Your task to perform on an android device: check out phone information Image 0: 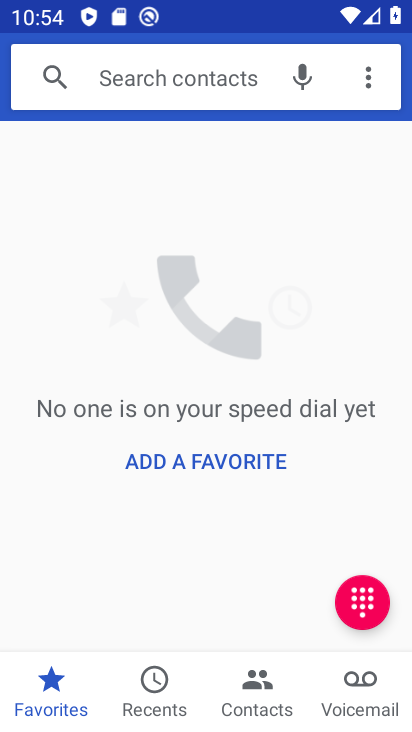
Step 0: press home button
Your task to perform on an android device: check out phone information Image 1: 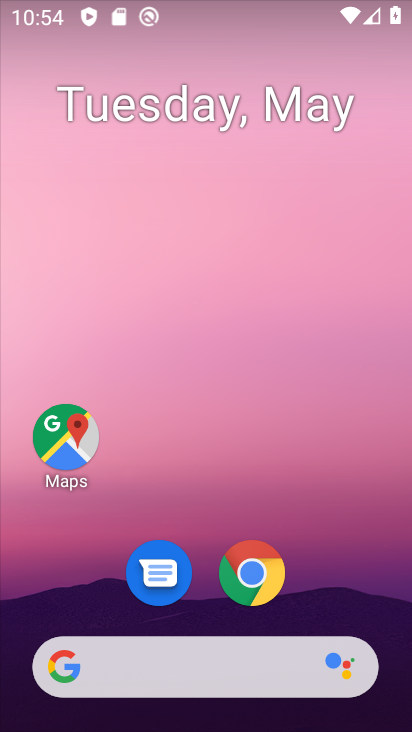
Step 1: drag from (242, 614) to (200, 318)
Your task to perform on an android device: check out phone information Image 2: 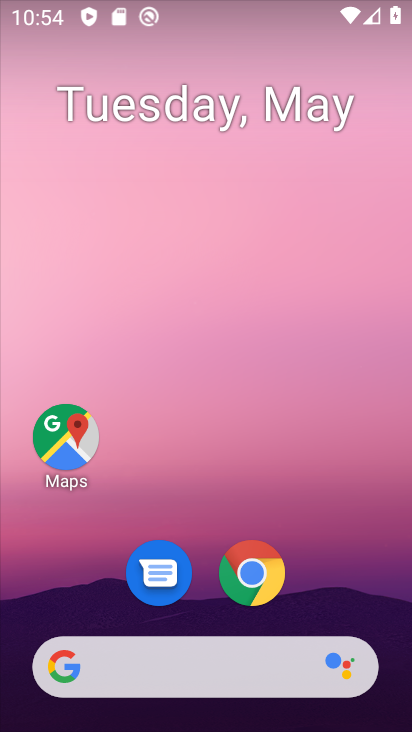
Step 2: drag from (192, 605) to (183, 328)
Your task to perform on an android device: check out phone information Image 3: 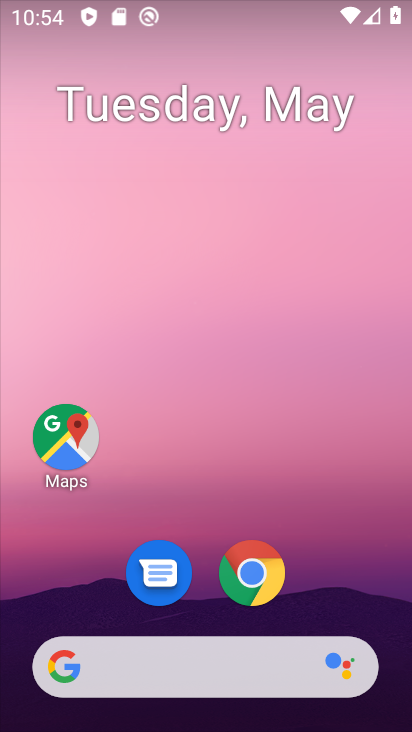
Step 3: drag from (205, 607) to (202, 190)
Your task to perform on an android device: check out phone information Image 4: 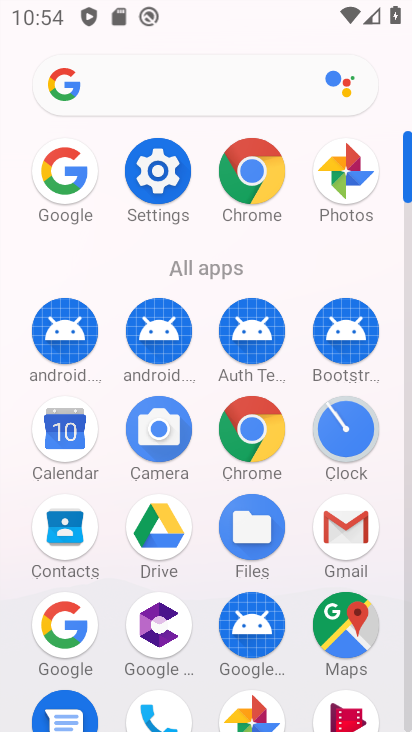
Step 4: click (162, 705)
Your task to perform on an android device: check out phone information Image 5: 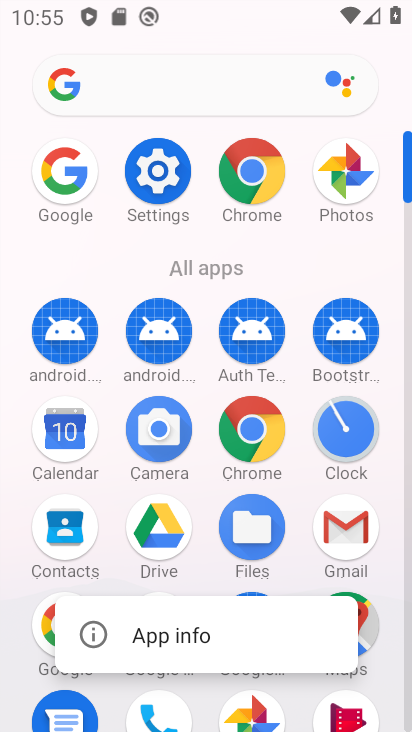
Step 5: click (167, 627)
Your task to perform on an android device: check out phone information Image 6: 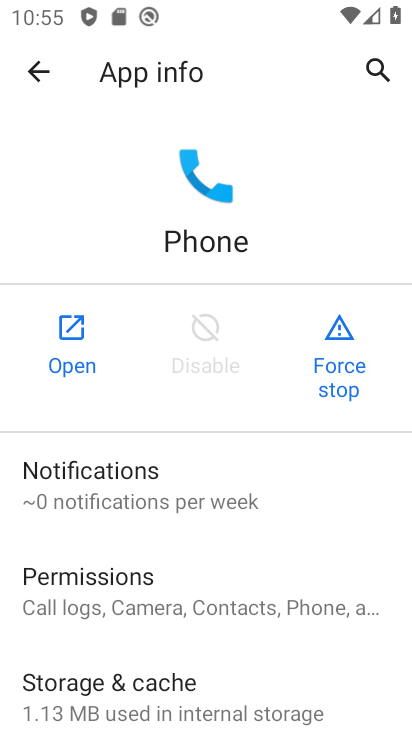
Step 6: drag from (146, 697) to (190, 406)
Your task to perform on an android device: check out phone information Image 7: 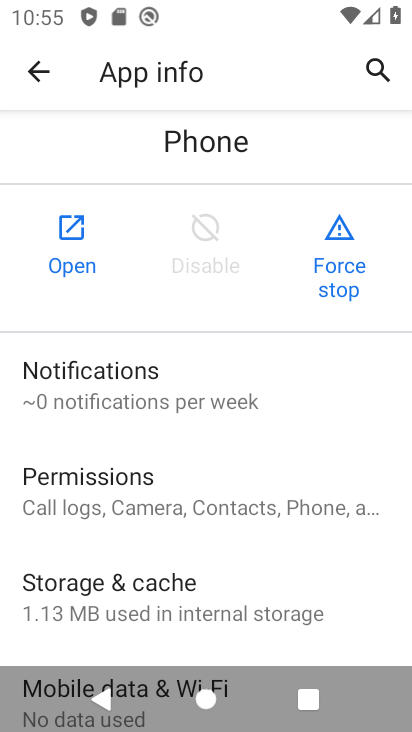
Step 7: drag from (158, 641) to (157, 329)
Your task to perform on an android device: check out phone information Image 8: 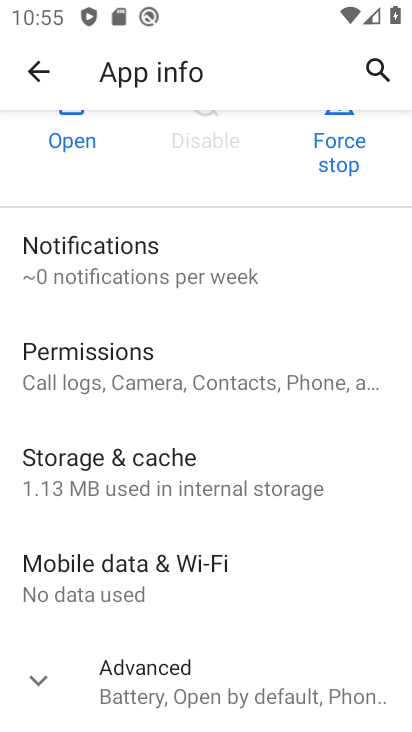
Step 8: click (148, 671)
Your task to perform on an android device: check out phone information Image 9: 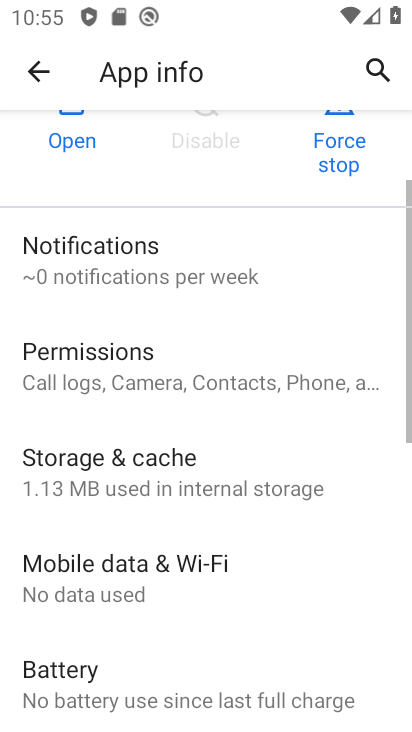
Step 9: task complete